Your task to perform on an android device: turn off airplane mode Image 0: 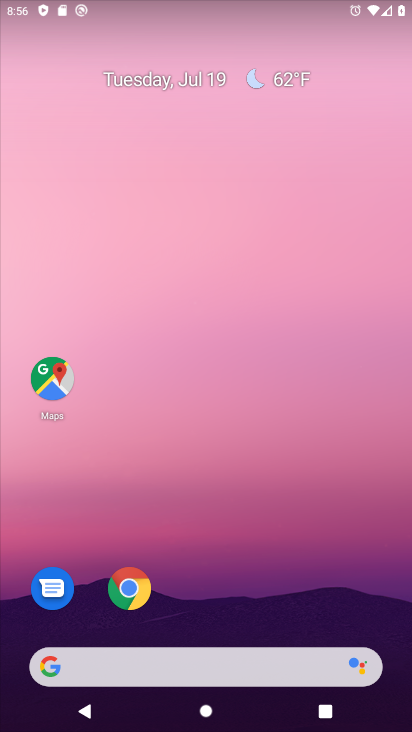
Step 0: drag from (196, 649) to (0, 110)
Your task to perform on an android device: turn off airplane mode Image 1: 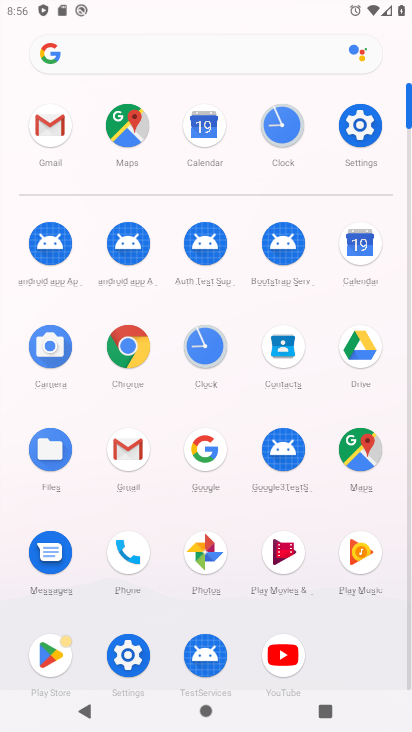
Step 1: click (350, 148)
Your task to perform on an android device: turn off airplane mode Image 2: 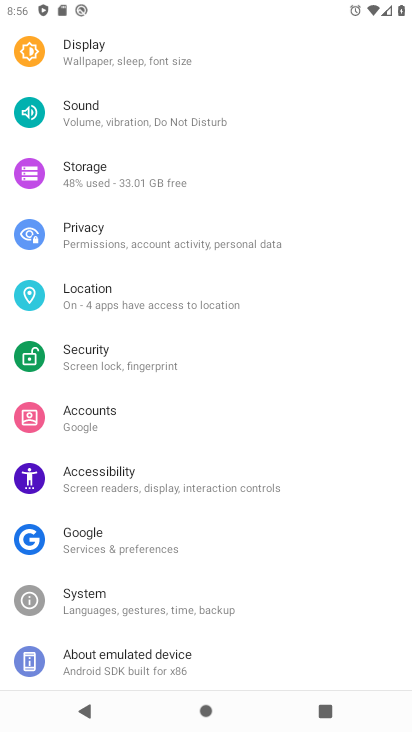
Step 2: drag from (209, 97) to (267, 605)
Your task to perform on an android device: turn off airplane mode Image 3: 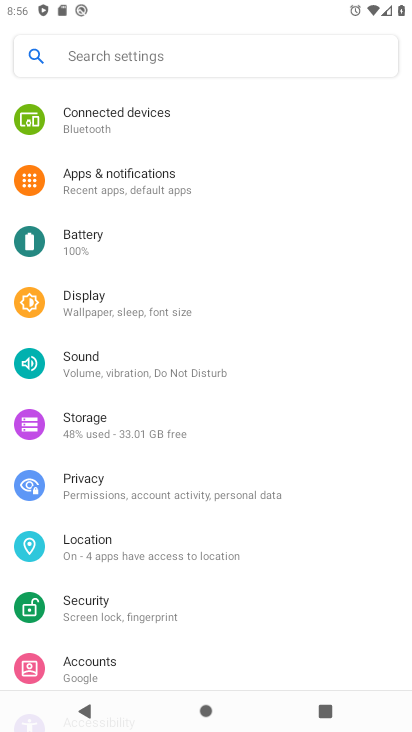
Step 3: drag from (171, 319) to (238, 571)
Your task to perform on an android device: turn off airplane mode Image 4: 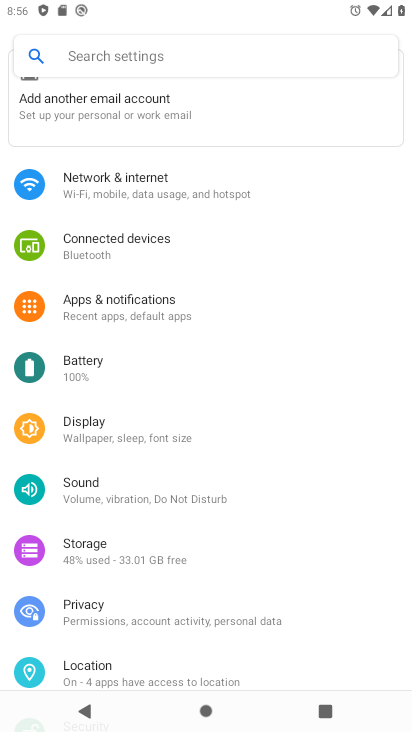
Step 4: click (150, 177)
Your task to perform on an android device: turn off airplane mode Image 5: 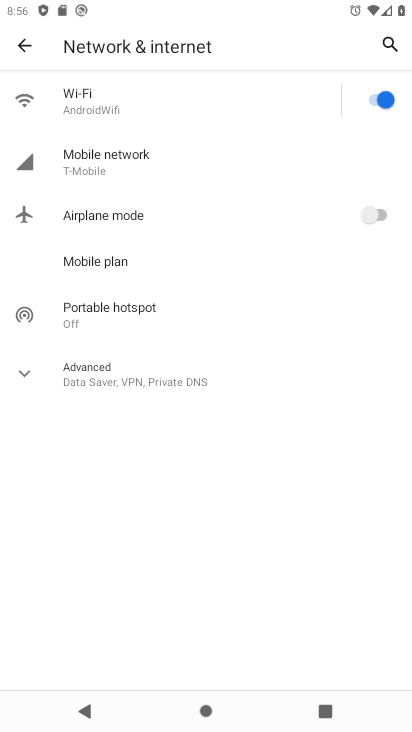
Step 5: task complete